Your task to perform on an android device: toggle wifi Image 0: 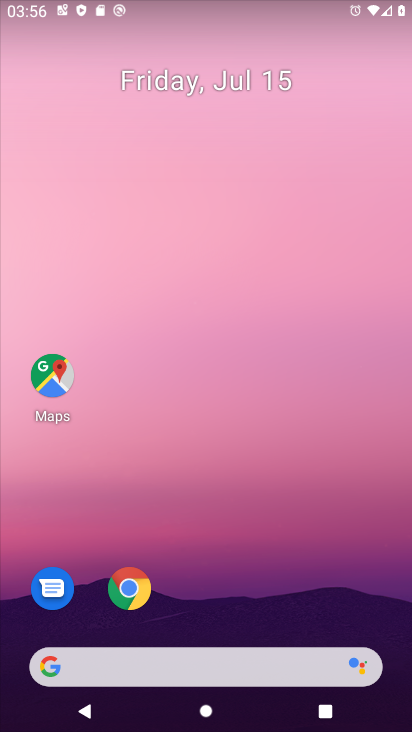
Step 0: drag from (196, 658) to (282, 290)
Your task to perform on an android device: toggle wifi Image 1: 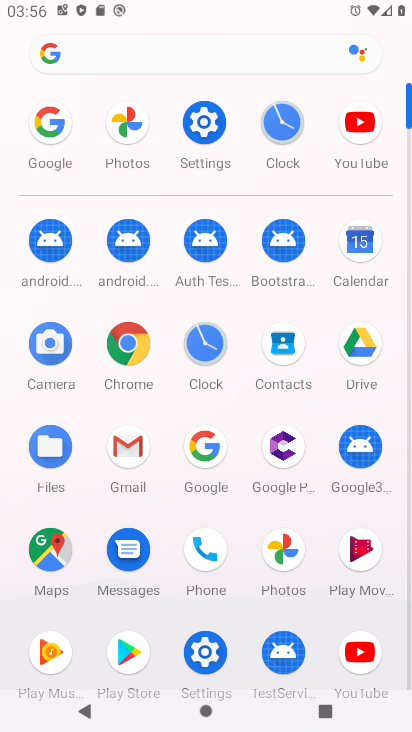
Step 1: click (205, 121)
Your task to perform on an android device: toggle wifi Image 2: 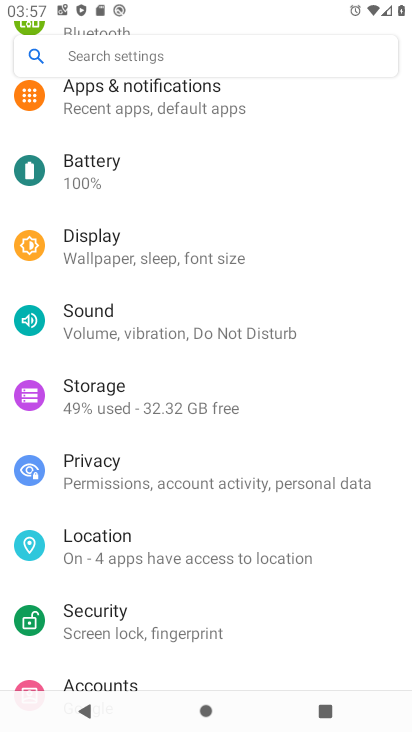
Step 2: drag from (186, 158) to (188, 333)
Your task to perform on an android device: toggle wifi Image 3: 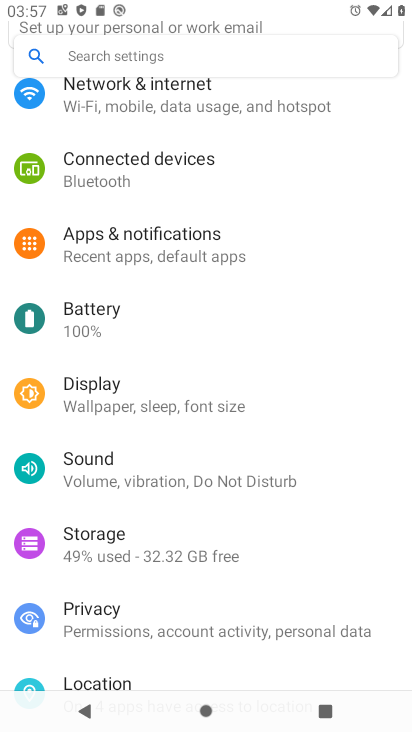
Step 3: drag from (181, 126) to (239, 327)
Your task to perform on an android device: toggle wifi Image 4: 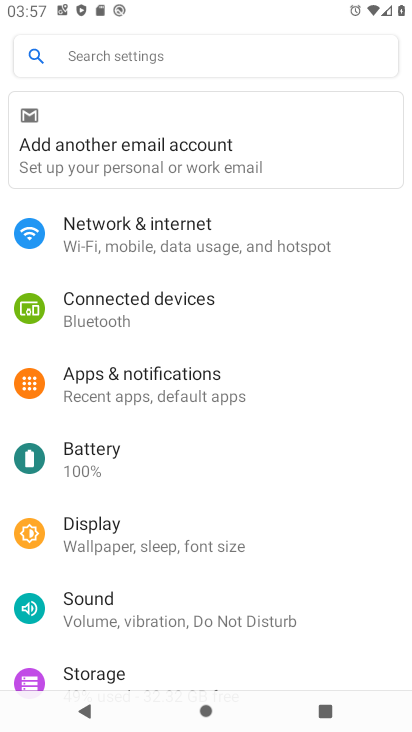
Step 4: click (151, 232)
Your task to perform on an android device: toggle wifi Image 5: 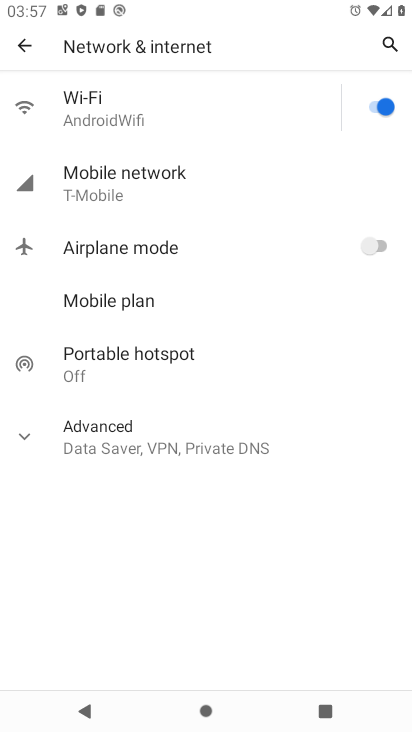
Step 5: click (101, 123)
Your task to perform on an android device: toggle wifi Image 6: 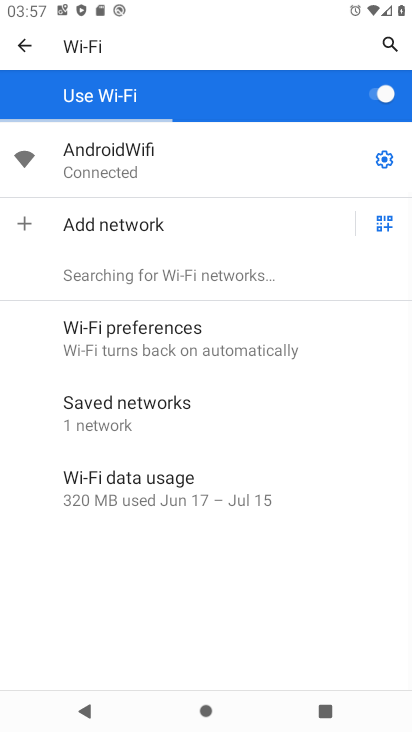
Step 6: click (377, 91)
Your task to perform on an android device: toggle wifi Image 7: 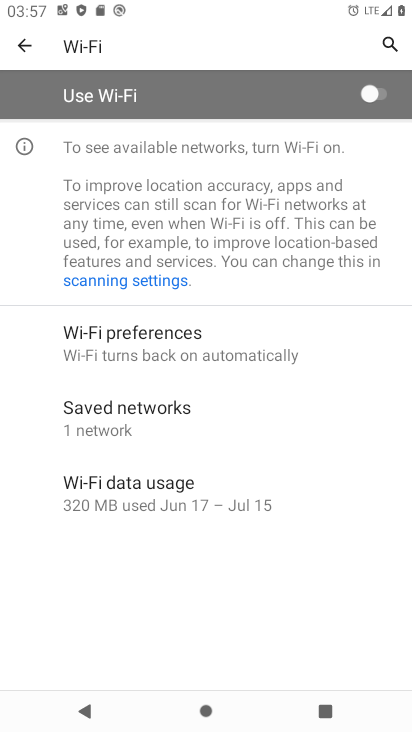
Step 7: task complete